Your task to perform on an android device: Go to eBay Image 0: 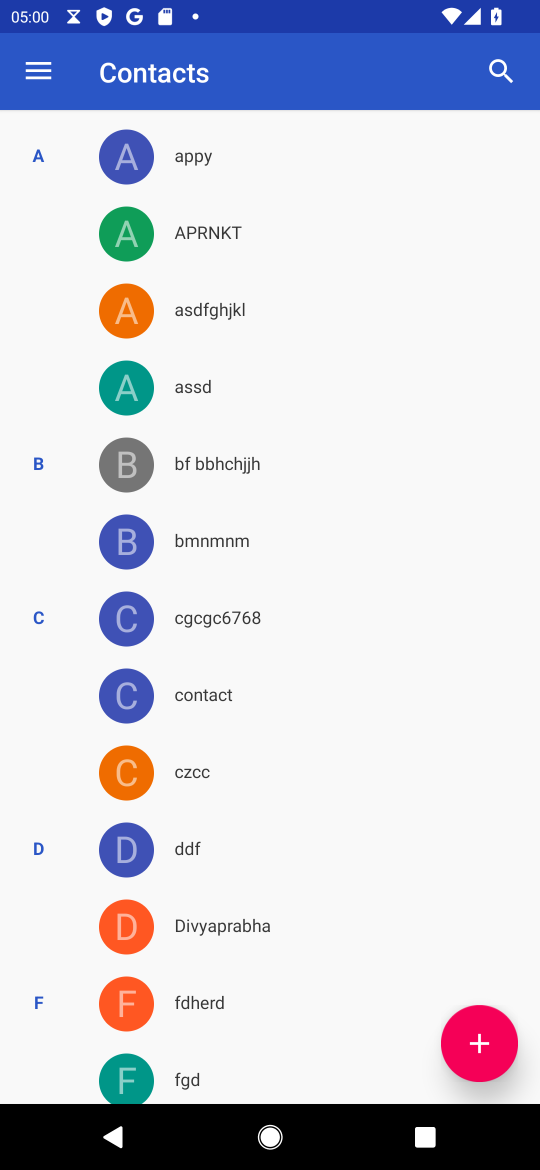
Step 0: press home button
Your task to perform on an android device: Go to eBay Image 1: 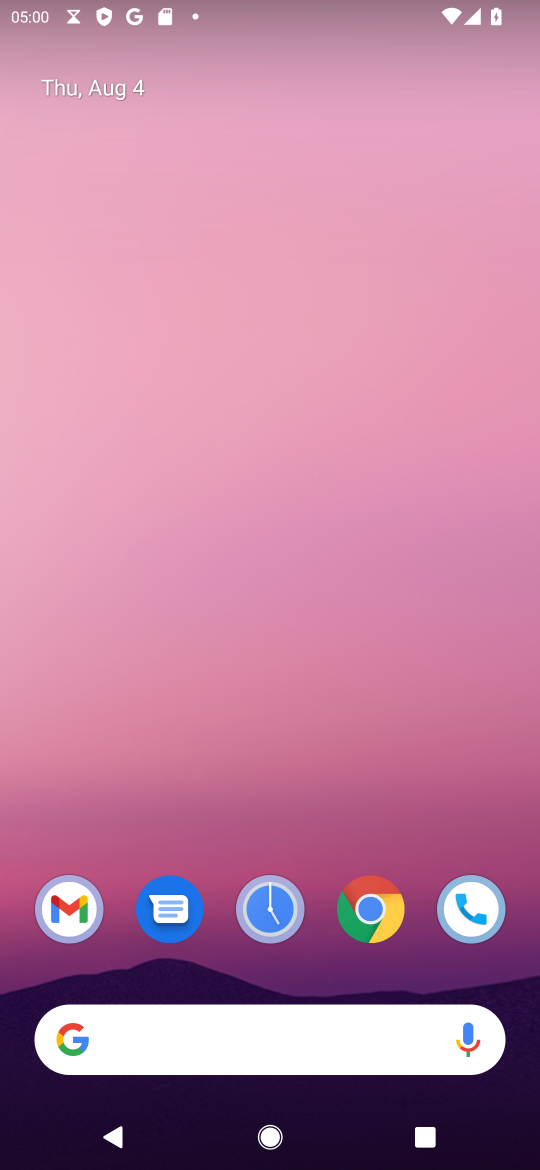
Step 1: click (377, 909)
Your task to perform on an android device: Go to eBay Image 2: 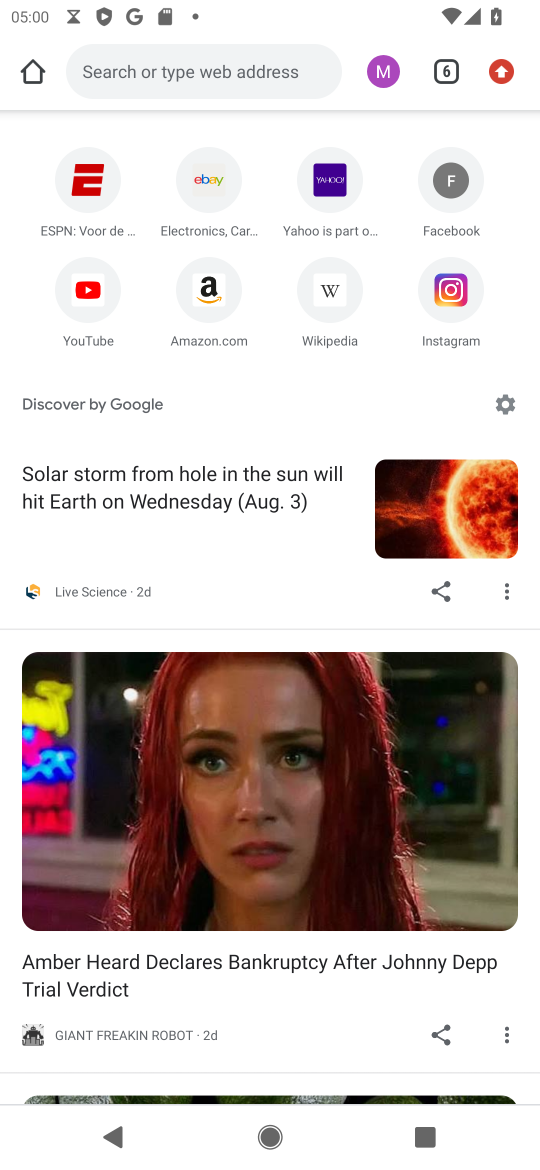
Step 2: click (203, 176)
Your task to perform on an android device: Go to eBay Image 3: 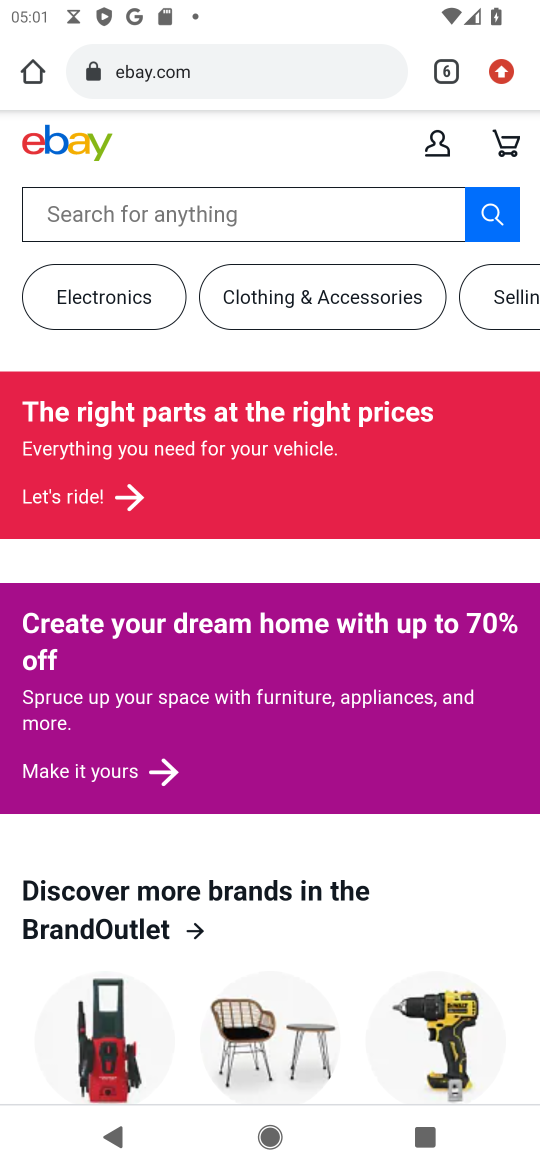
Step 3: task complete